Your task to perform on an android device: Open notification settings Image 0: 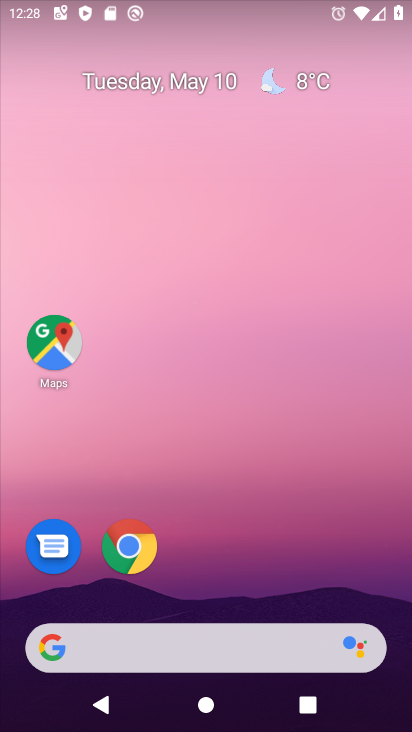
Step 0: drag from (323, 667) to (165, 110)
Your task to perform on an android device: Open notification settings Image 1: 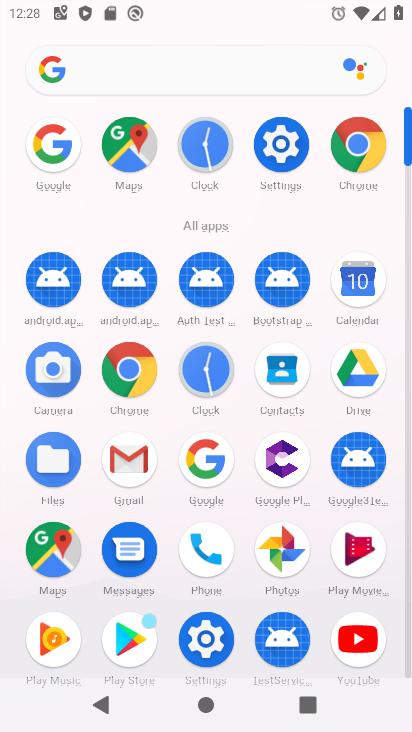
Step 1: click (275, 125)
Your task to perform on an android device: Open notification settings Image 2: 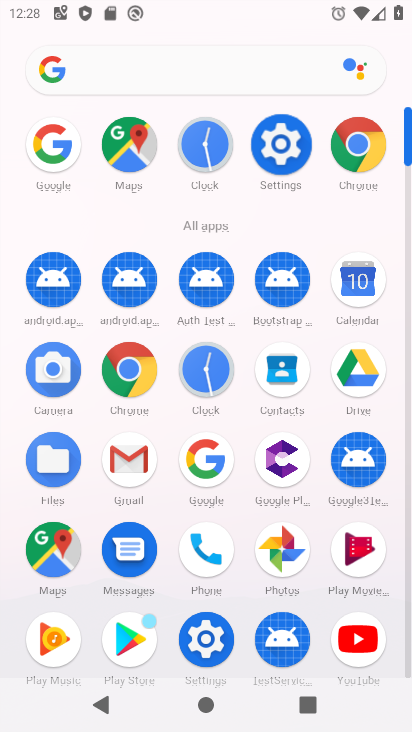
Step 2: click (290, 135)
Your task to perform on an android device: Open notification settings Image 3: 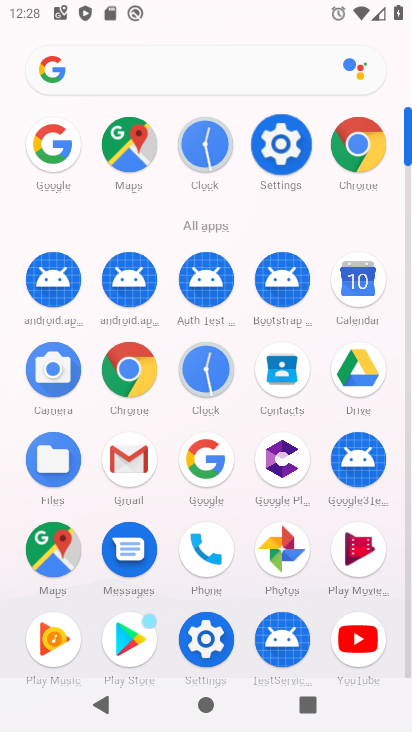
Step 3: click (290, 135)
Your task to perform on an android device: Open notification settings Image 4: 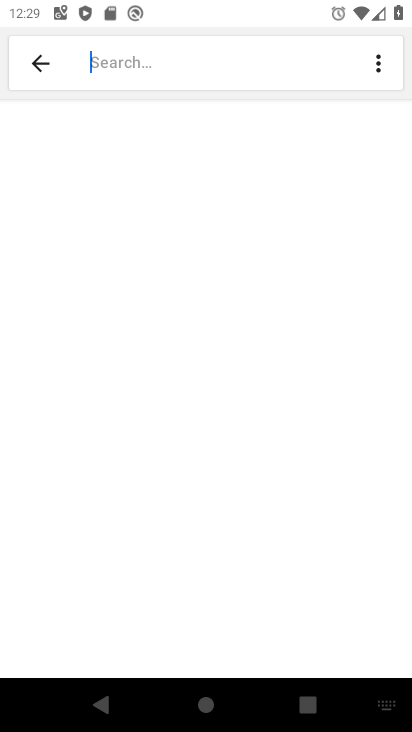
Step 4: click (34, 57)
Your task to perform on an android device: Open notification settings Image 5: 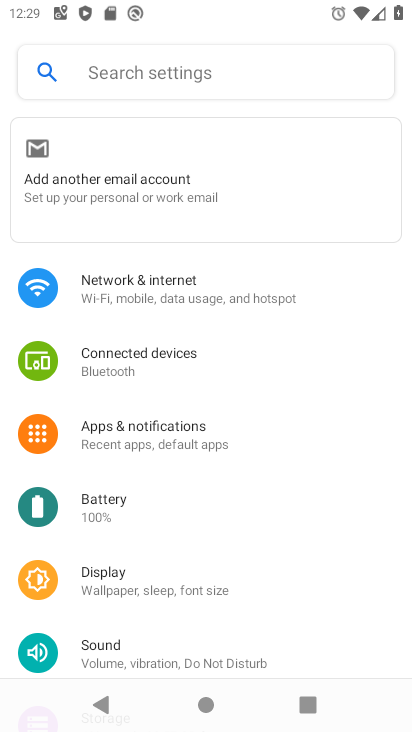
Step 5: click (137, 433)
Your task to perform on an android device: Open notification settings Image 6: 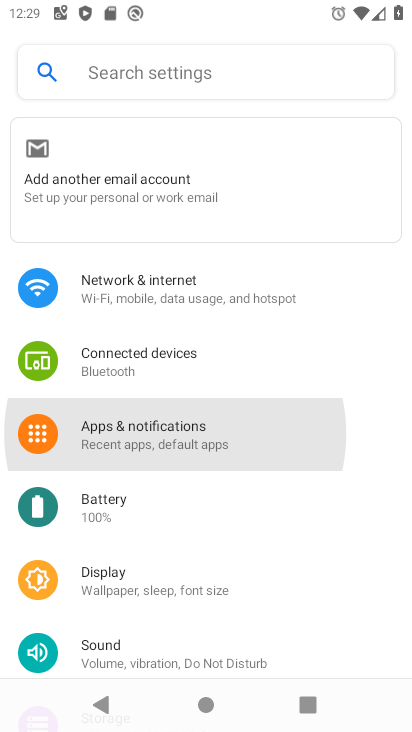
Step 6: click (135, 436)
Your task to perform on an android device: Open notification settings Image 7: 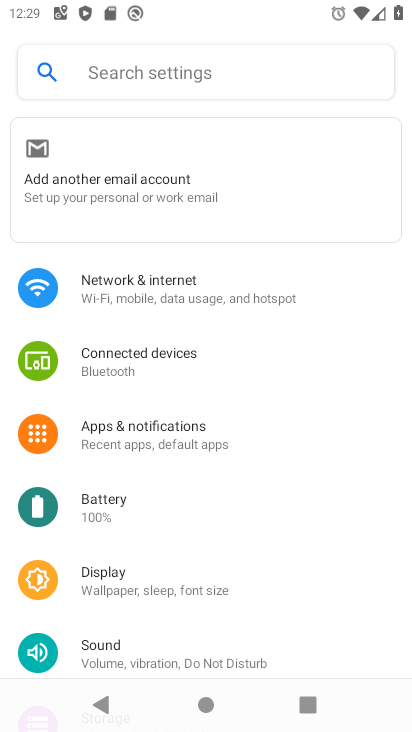
Step 7: click (135, 437)
Your task to perform on an android device: Open notification settings Image 8: 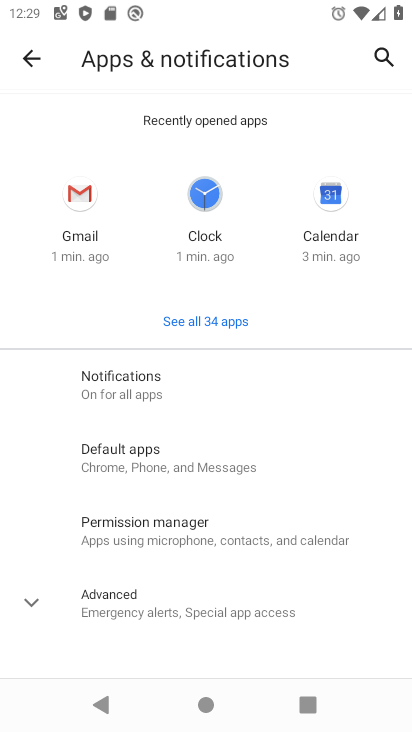
Step 8: click (127, 387)
Your task to perform on an android device: Open notification settings Image 9: 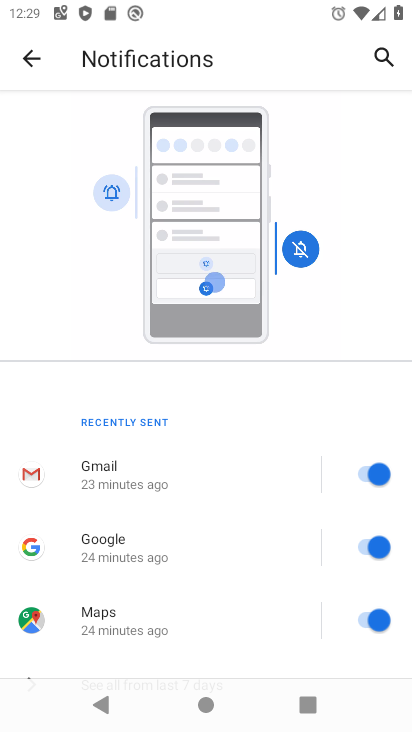
Step 9: task complete